Your task to perform on an android device: Clear the cart on costco. Search for razer nari on costco, select the first entry, and add it to the cart. Image 0: 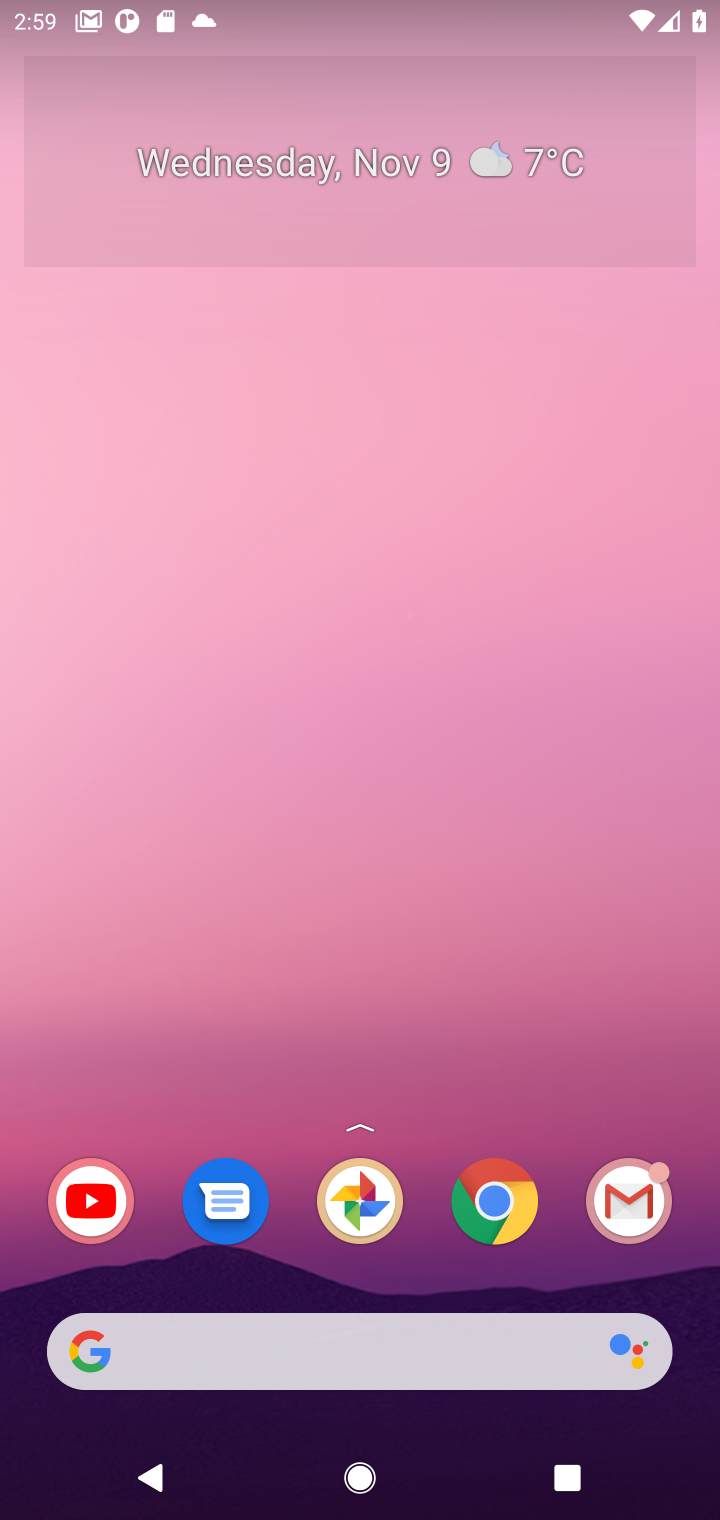
Step 0: click (325, 1358)
Your task to perform on an android device: Clear the cart on costco. Search for razer nari on costco, select the first entry, and add it to the cart. Image 1: 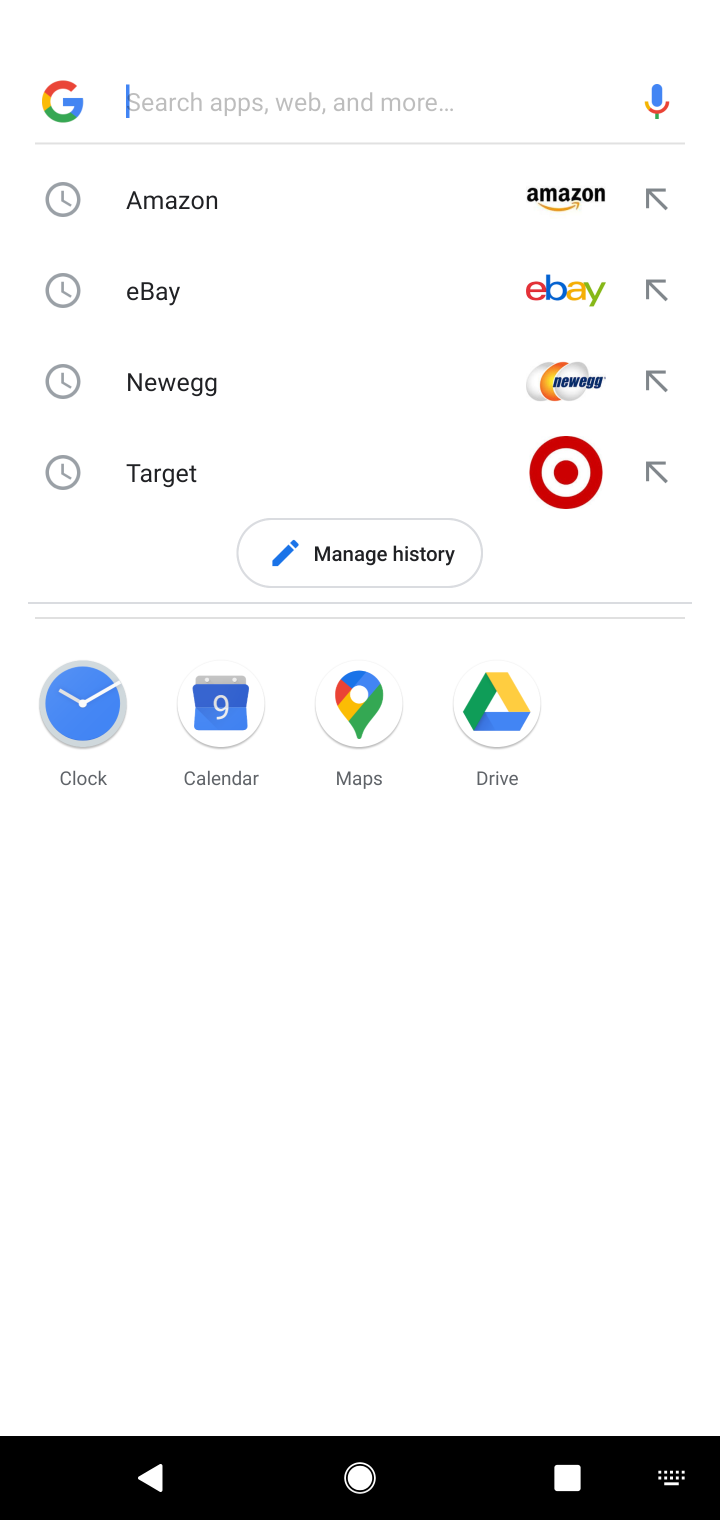
Step 1: type "costco"
Your task to perform on an android device: Clear the cart on costco. Search for razer nari on costco, select the first entry, and add it to the cart. Image 2: 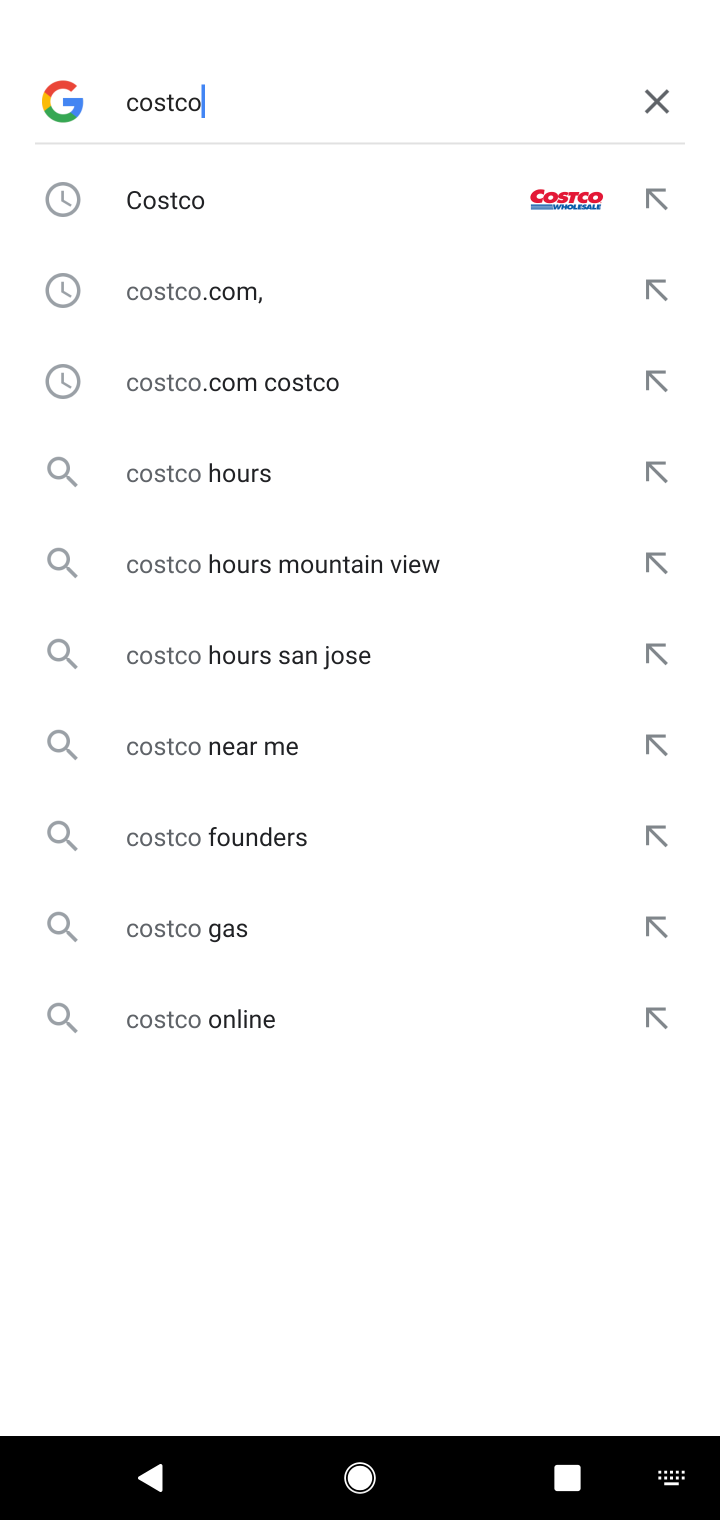
Step 2: click (256, 195)
Your task to perform on an android device: Clear the cart on costco. Search for razer nari on costco, select the first entry, and add it to the cart. Image 3: 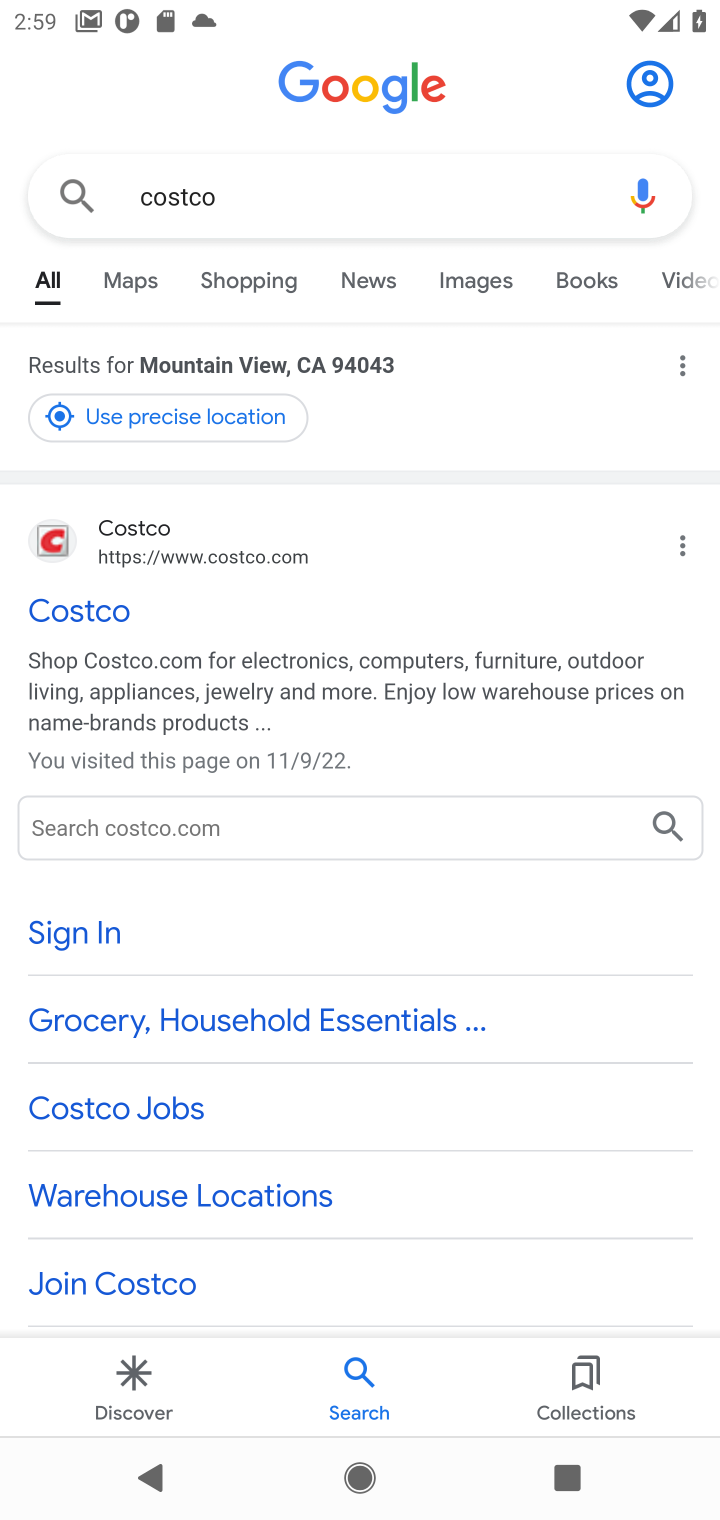
Step 3: click (130, 529)
Your task to perform on an android device: Clear the cart on costco. Search for razer nari on costco, select the first entry, and add it to the cart. Image 4: 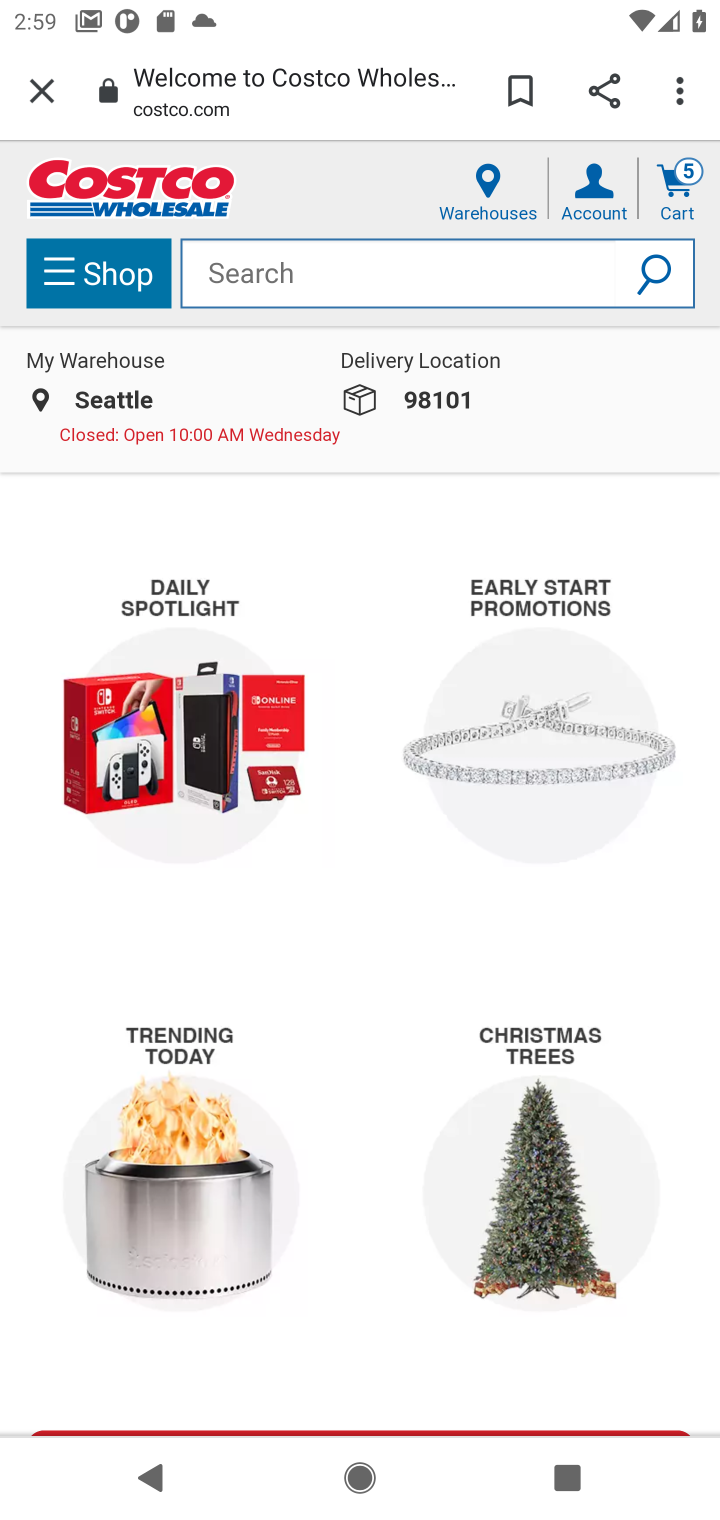
Step 4: click (351, 271)
Your task to perform on an android device: Clear the cart on costco. Search for razer nari on costco, select the first entry, and add it to the cart. Image 5: 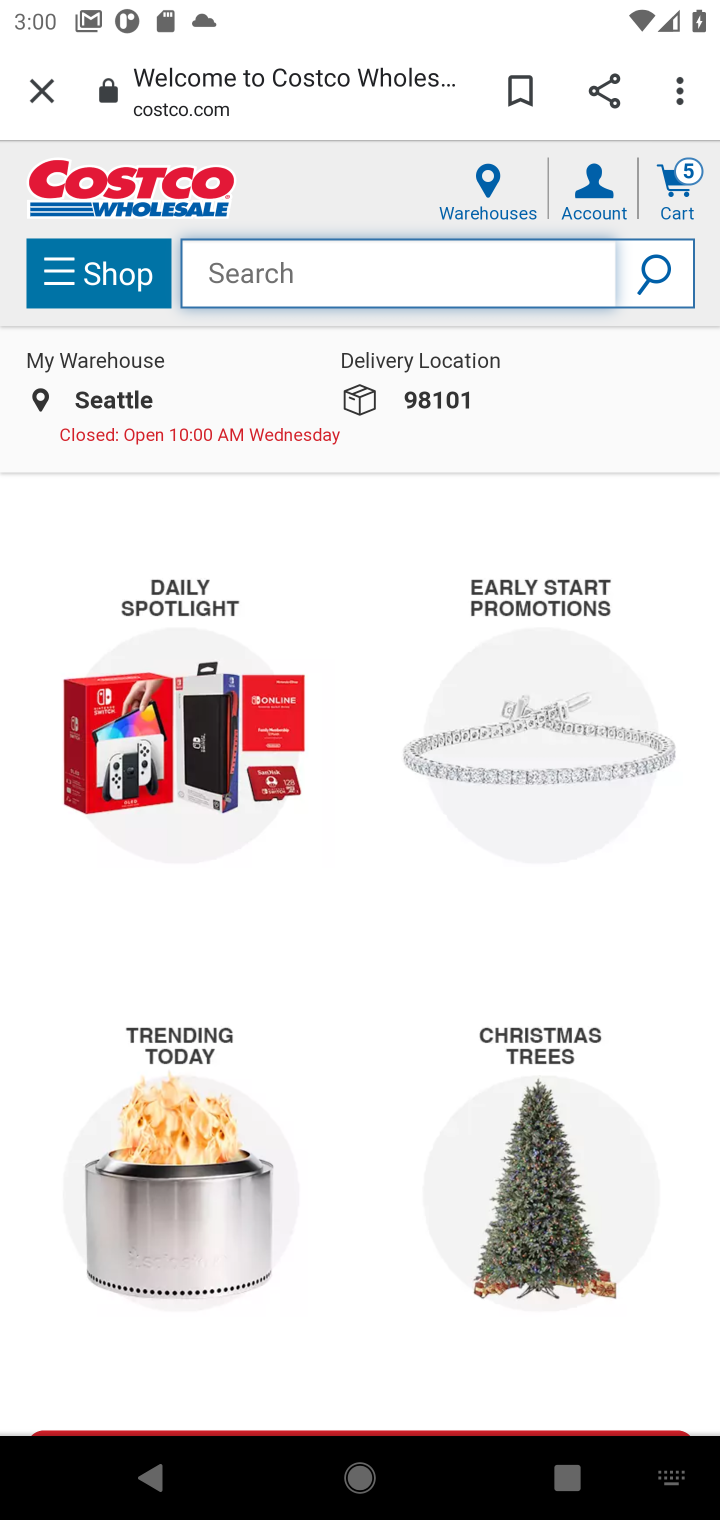
Step 5: type " razer nari "
Your task to perform on an android device: Clear the cart on costco. Search for razer nari on costco, select the first entry, and add it to the cart. Image 6: 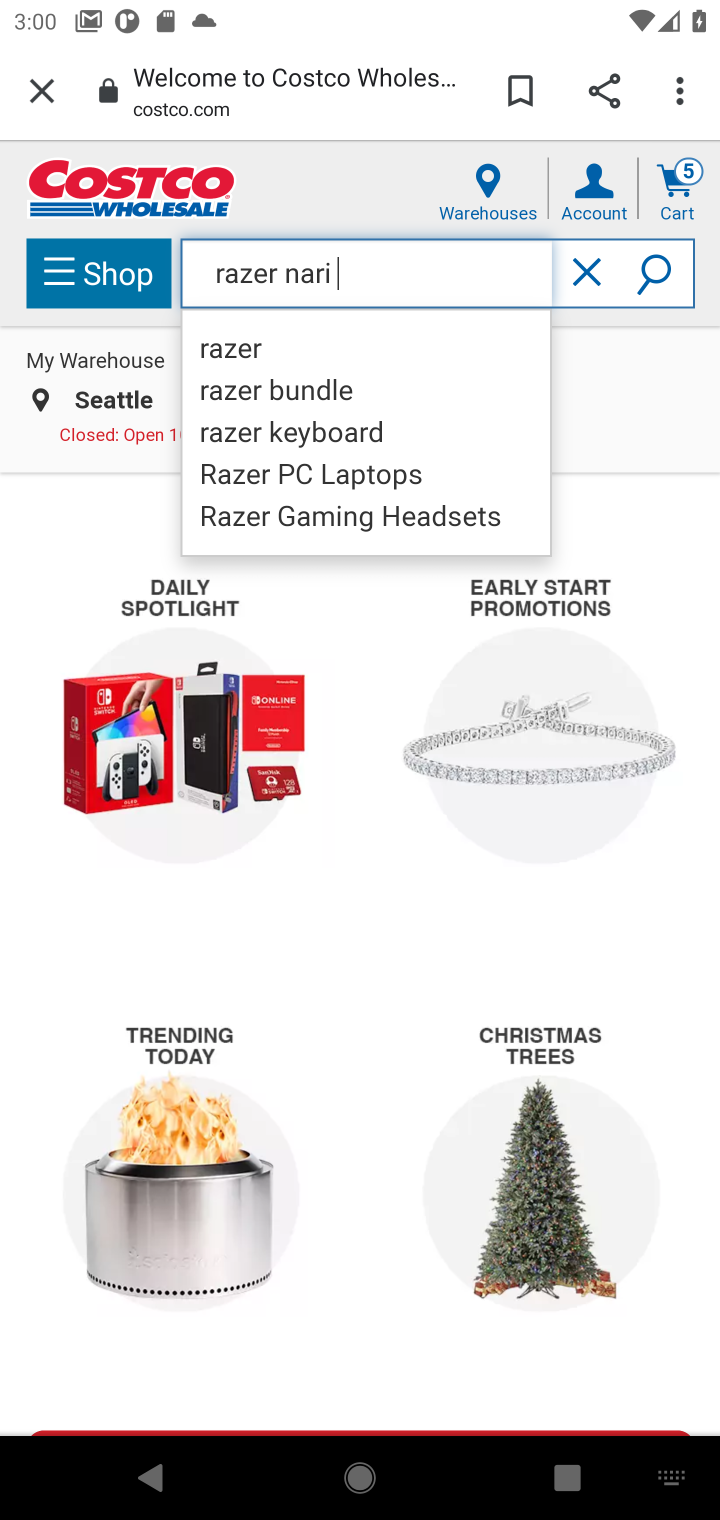
Step 6: click (245, 346)
Your task to perform on an android device: Clear the cart on costco. Search for razer nari on costco, select the first entry, and add it to the cart. Image 7: 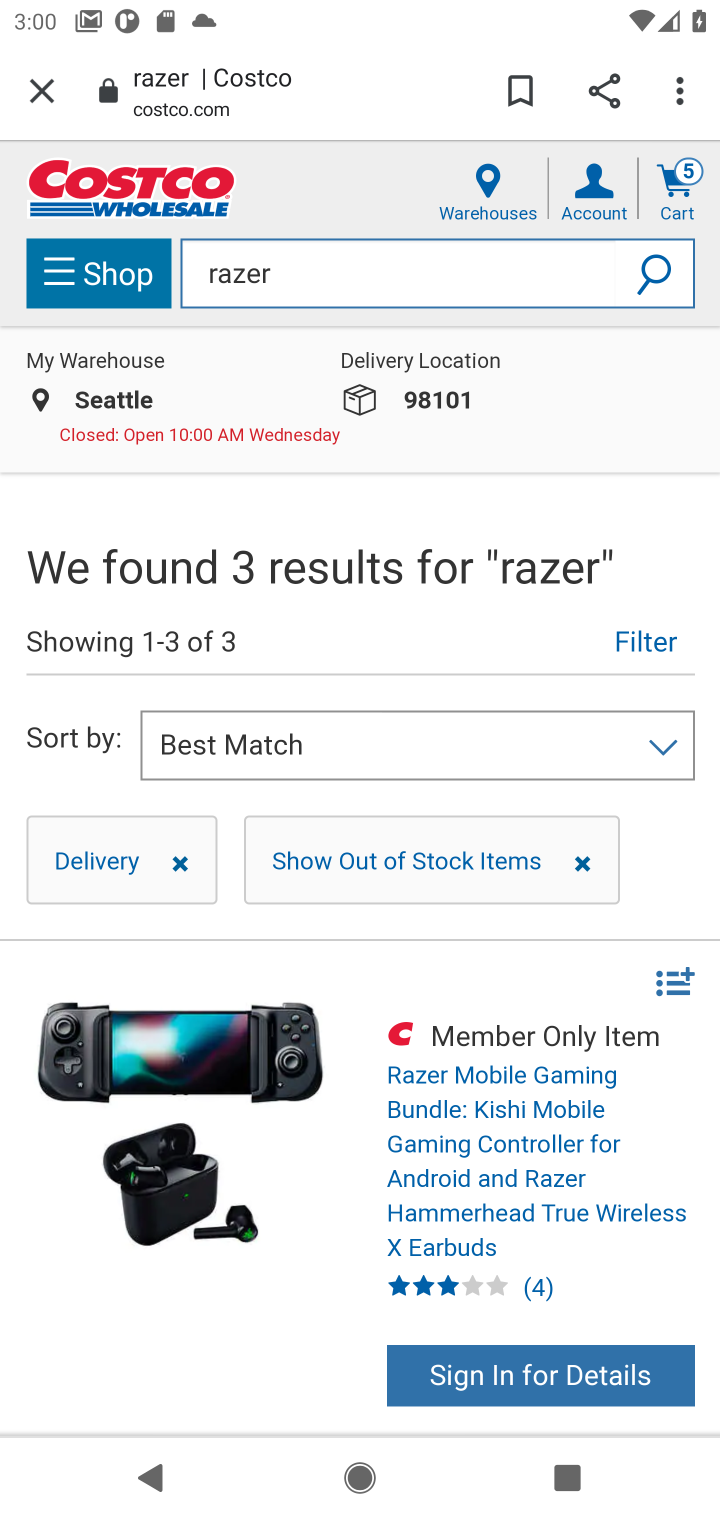
Step 7: click (223, 1121)
Your task to perform on an android device: Clear the cart on costco. Search for razer nari on costco, select the first entry, and add it to the cart. Image 8: 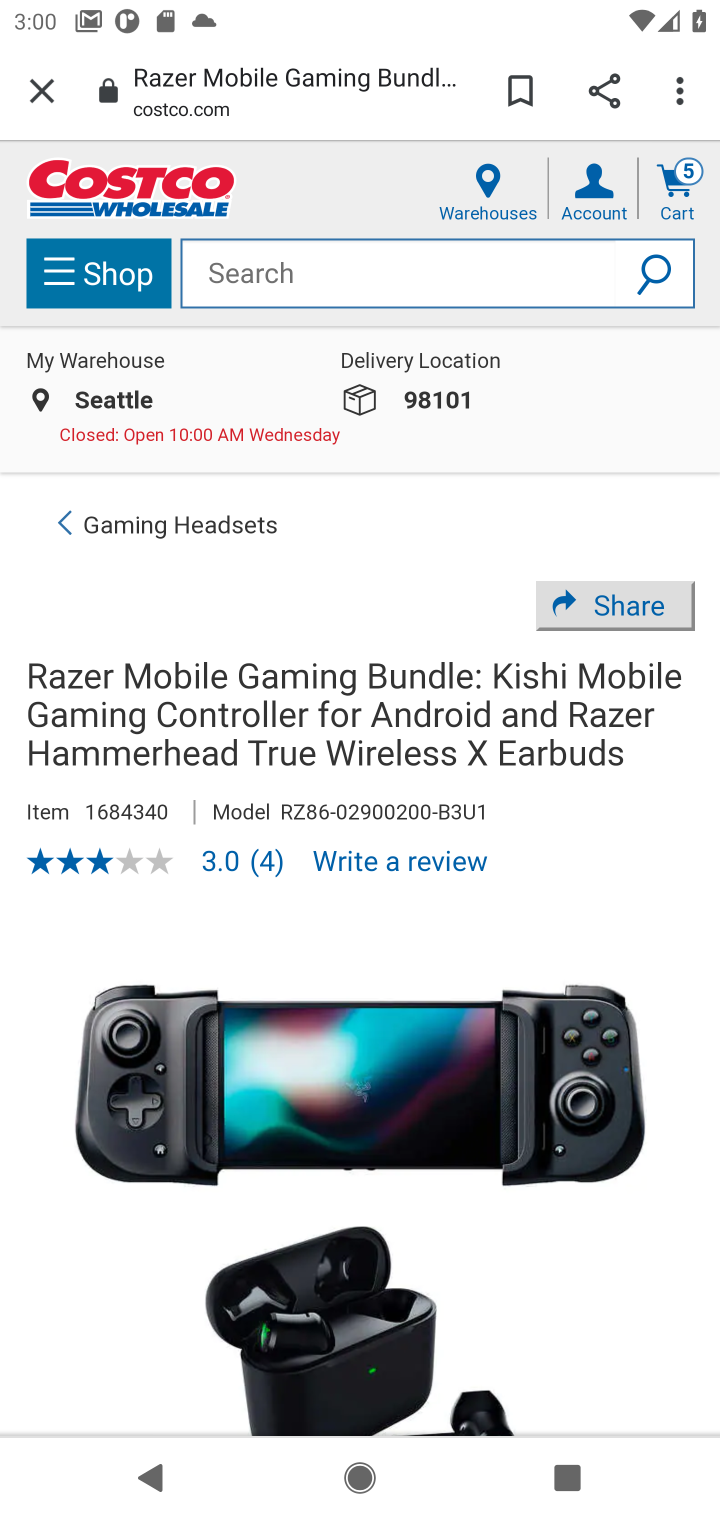
Step 8: drag from (324, 1099) to (367, 494)
Your task to perform on an android device: Clear the cart on costco. Search for razer nari on costco, select the first entry, and add it to the cart. Image 9: 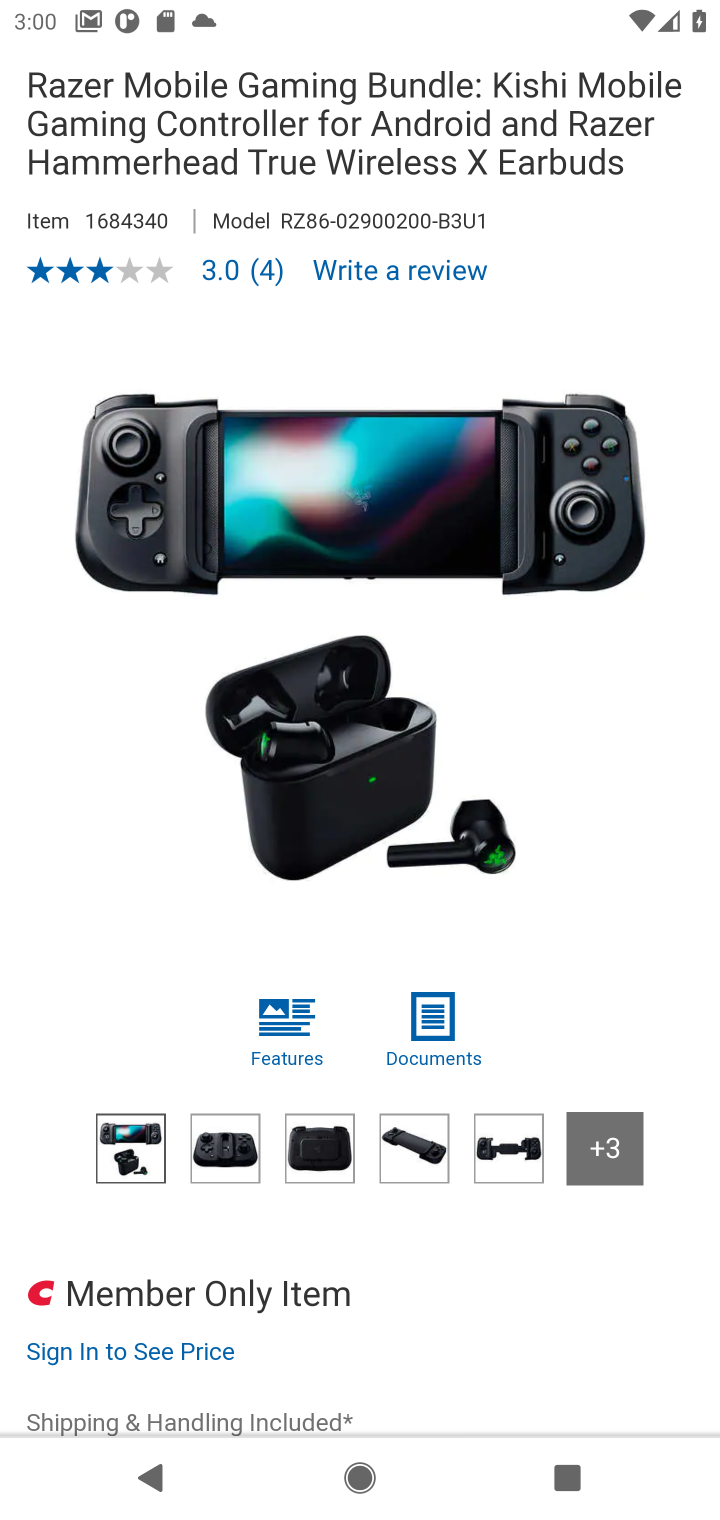
Step 9: drag from (363, 1161) to (399, 778)
Your task to perform on an android device: Clear the cart on costco. Search for razer nari on costco, select the first entry, and add it to the cart. Image 10: 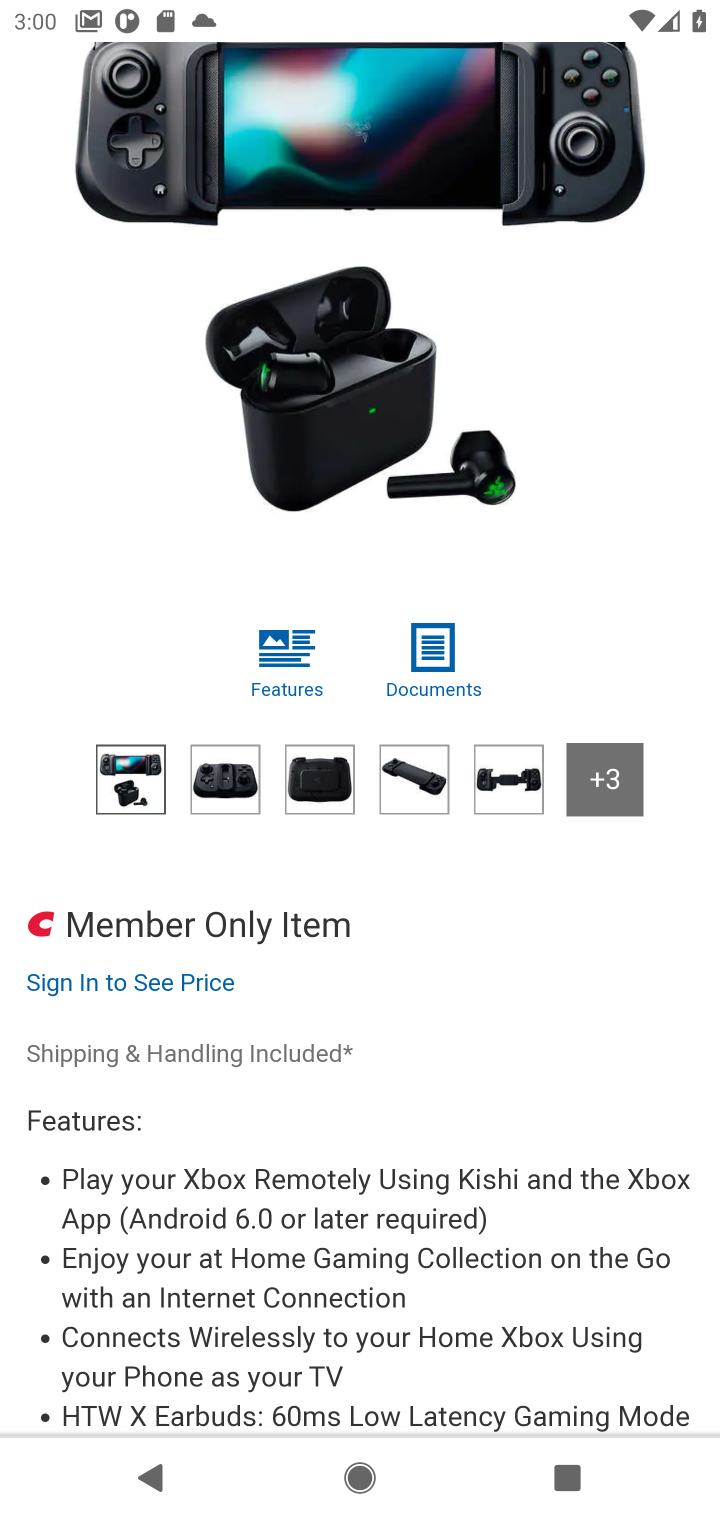
Step 10: drag from (353, 1102) to (415, 557)
Your task to perform on an android device: Clear the cart on costco. Search for razer nari on costco, select the first entry, and add it to the cart. Image 11: 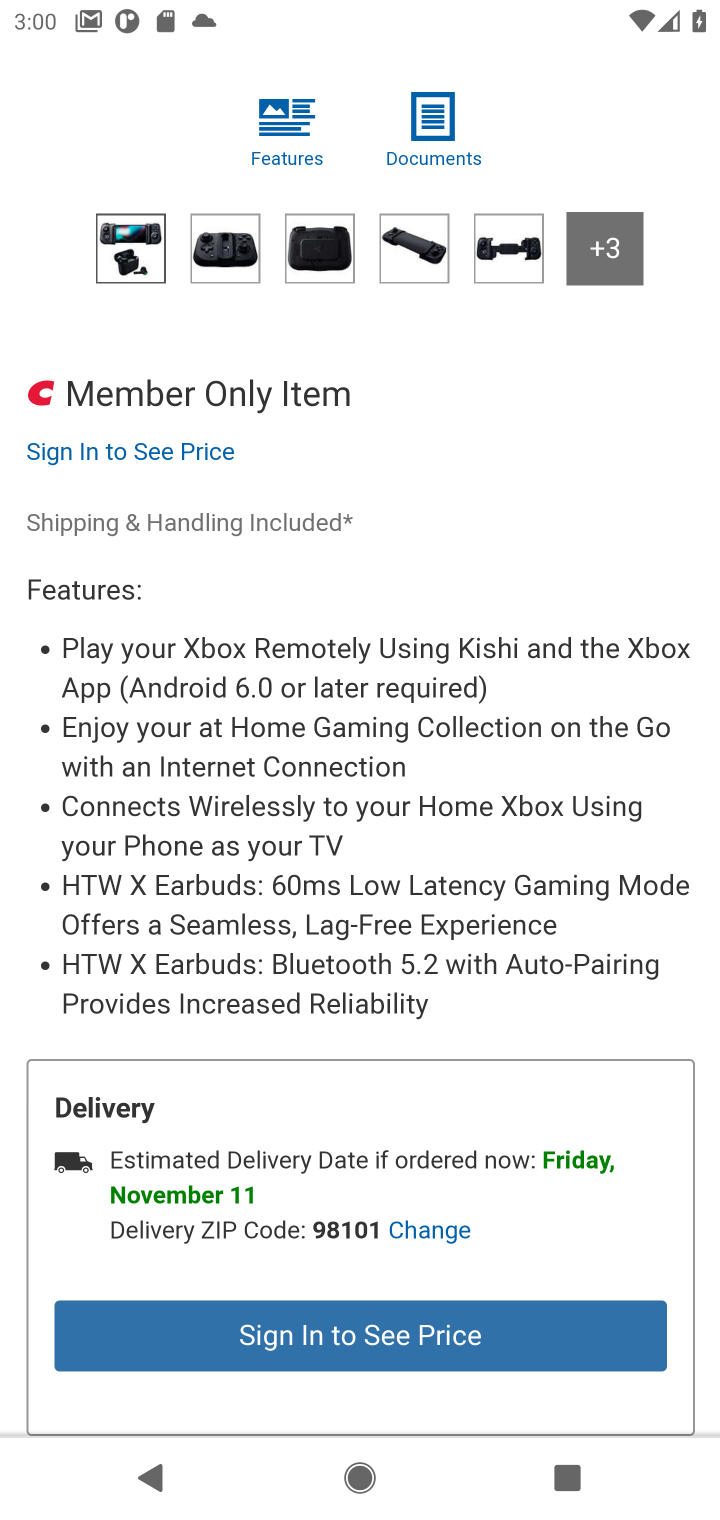
Step 11: drag from (351, 1119) to (373, 804)
Your task to perform on an android device: Clear the cart on costco. Search for razer nari on costco, select the first entry, and add it to the cart. Image 12: 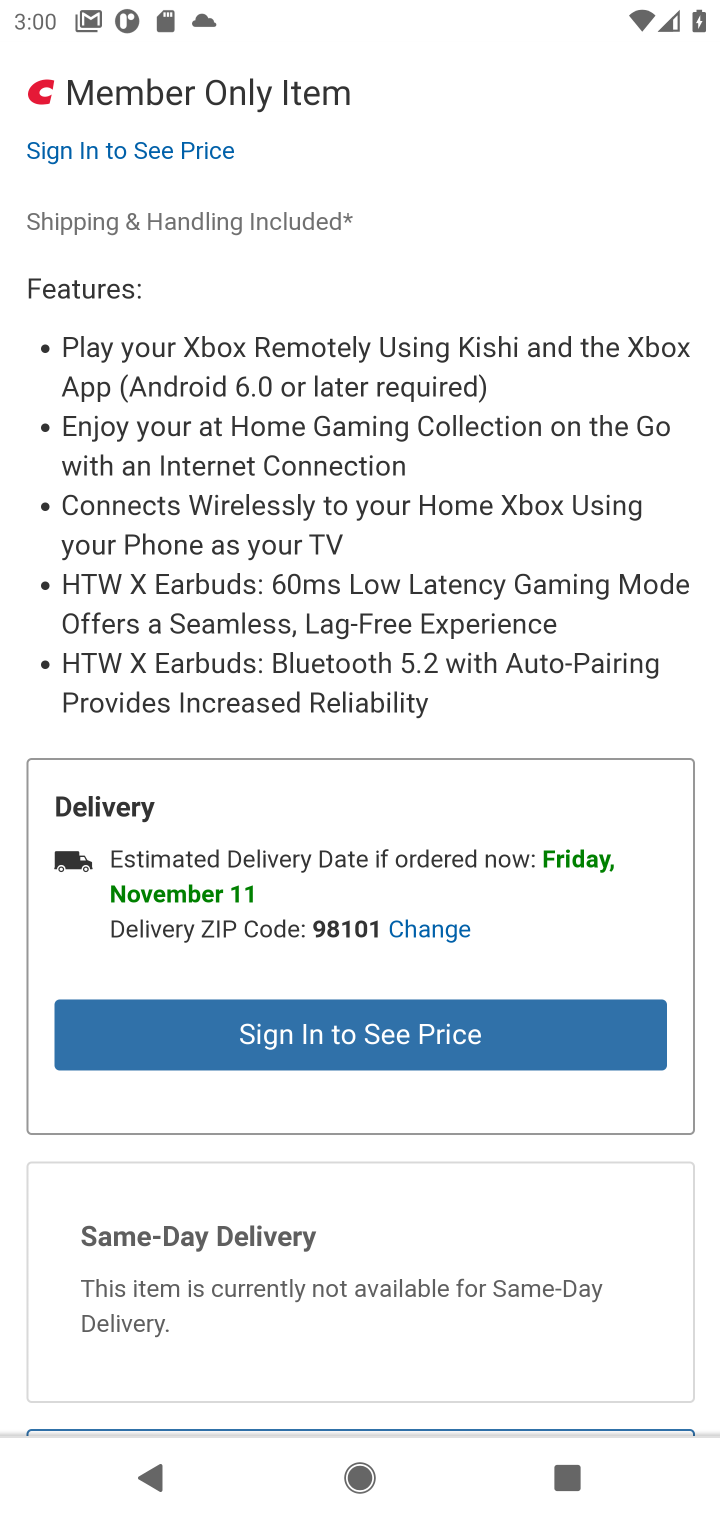
Step 12: drag from (357, 1347) to (463, 521)
Your task to perform on an android device: Clear the cart on costco. Search for razer nari on costco, select the first entry, and add it to the cart. Image 13: 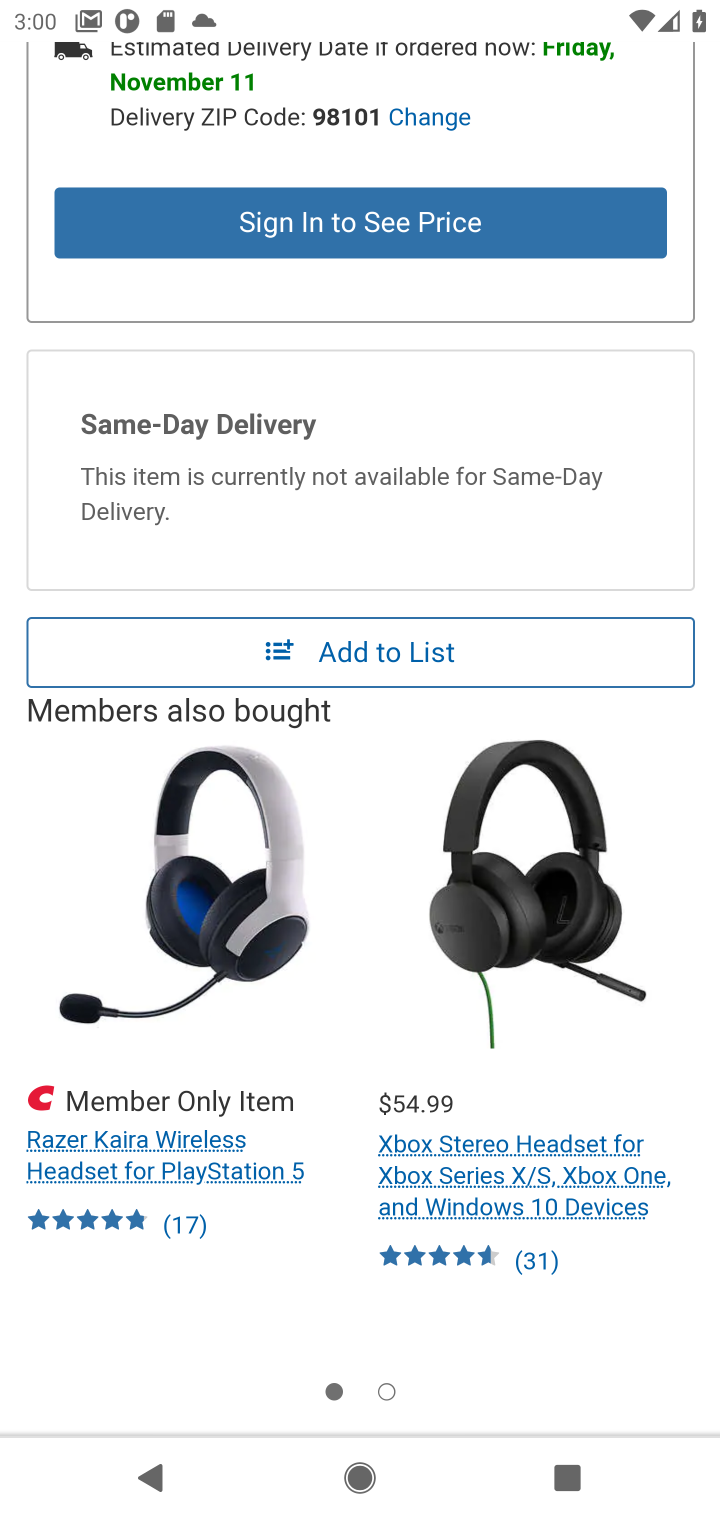
Step 13: click (363, 1216)
Your task to perform on an android device: Clear the cart on costco. Search for razer nari on costco, select the first entry, and add it to the cart. Image 14: 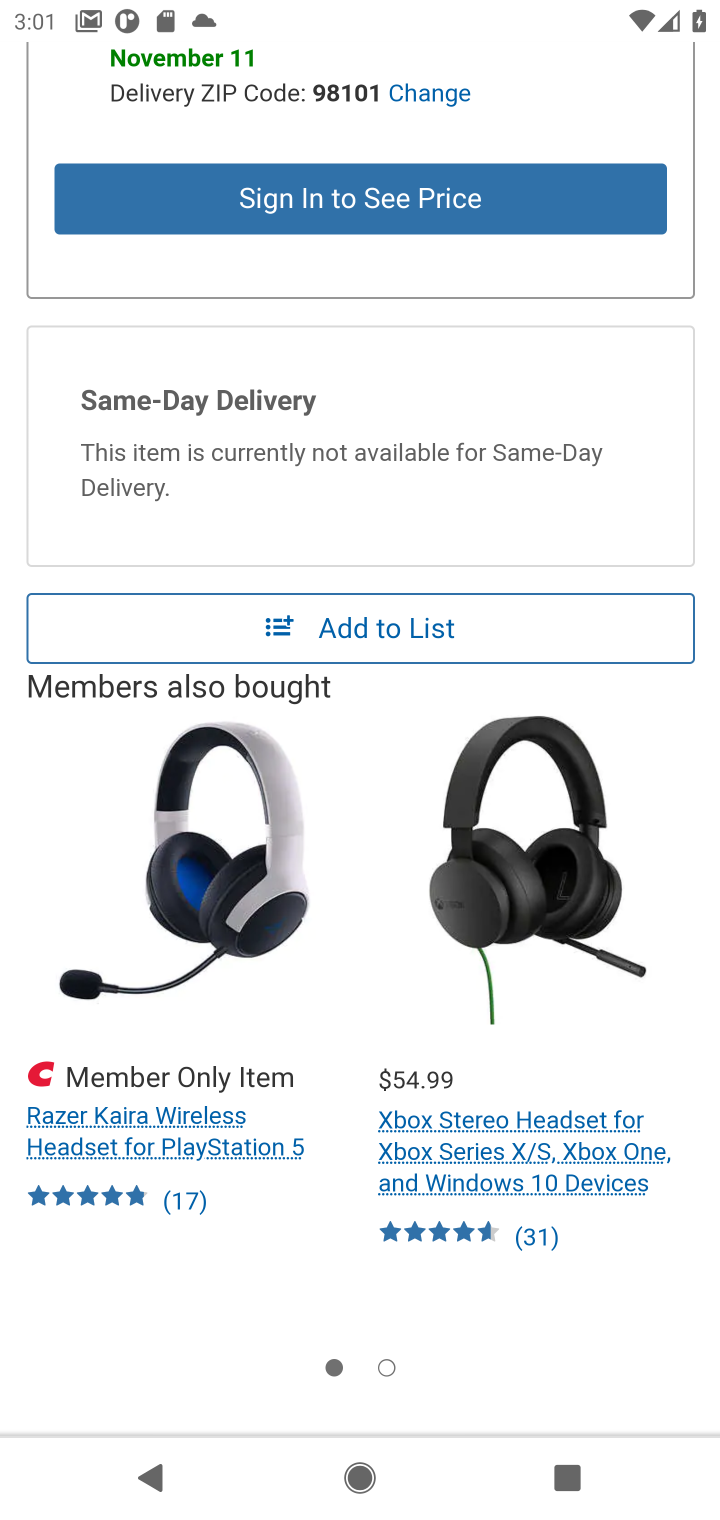
Step 14: click (385, 637)
Your task to perform on an android device: Clear the cart on costco. Search for razer nari on costco, select the first entry, and add it to the cart. Image 15: 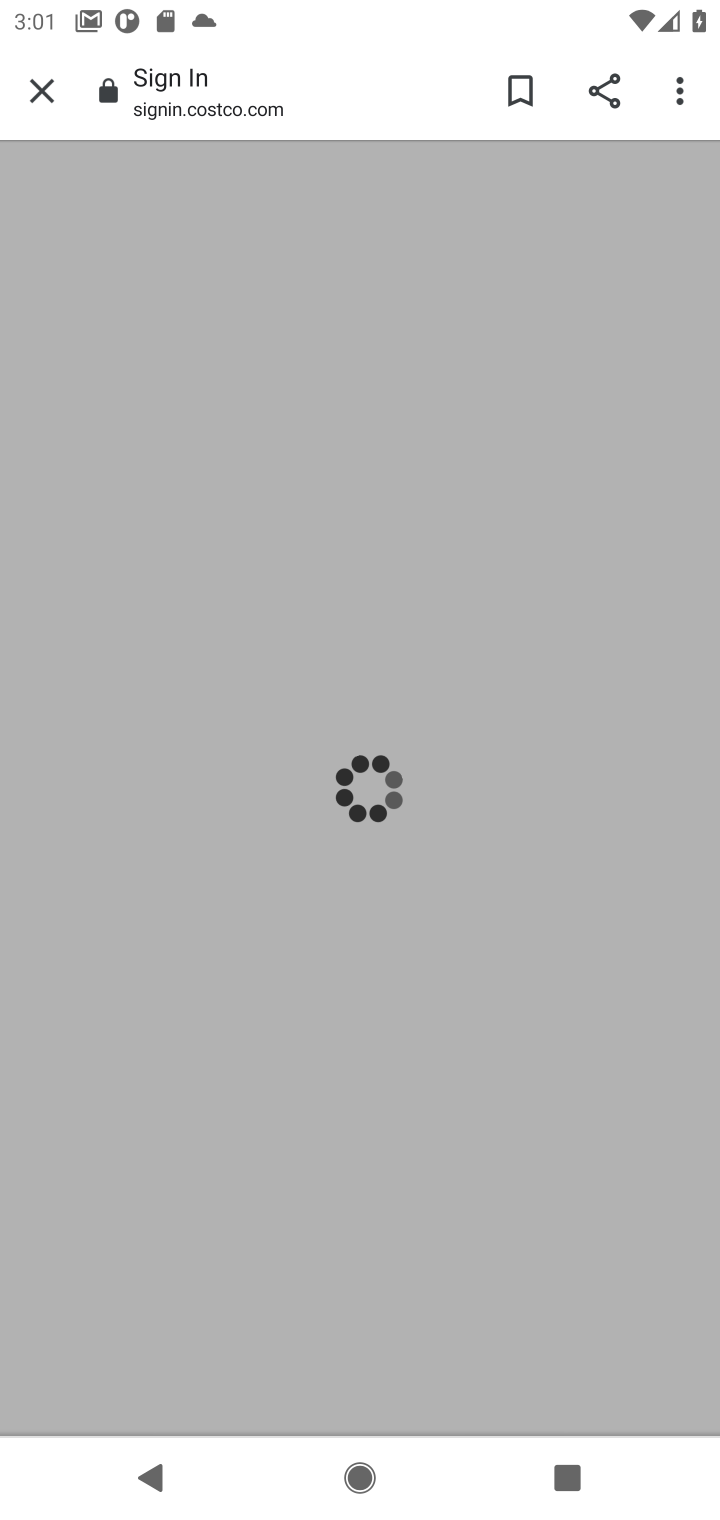
Step 15: task complete